Your task to perform on an android device: snooze an email in the gmail app Image 0: 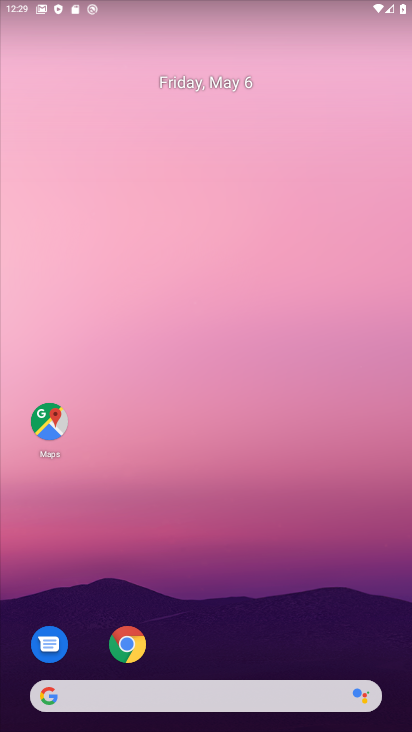
Step 0: drag from (191, 693) to (282, 2)
Your task to perform on an android device: snooze an email in the gmail app Image 1: 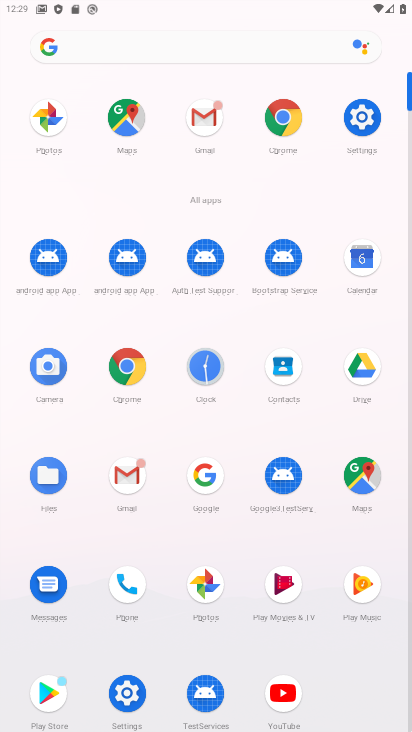
Step 1: click (209, 117)
Your task to perform on an android device: snooze an email in the gmail app Image 2: 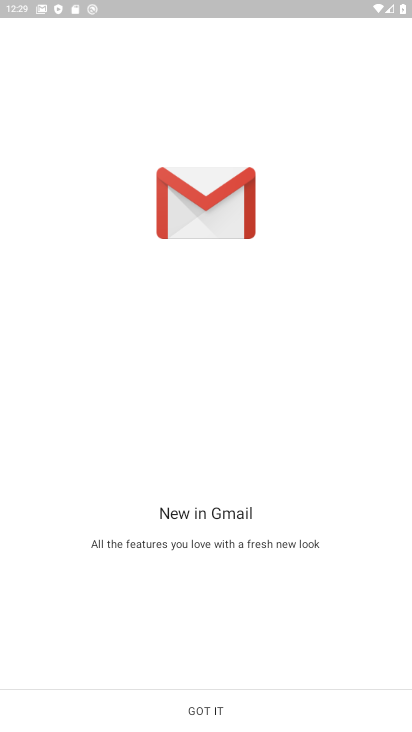
Step 2: click (166, 726)
Your task to perform on an android device: snooze an email in the gmail app Image 3: 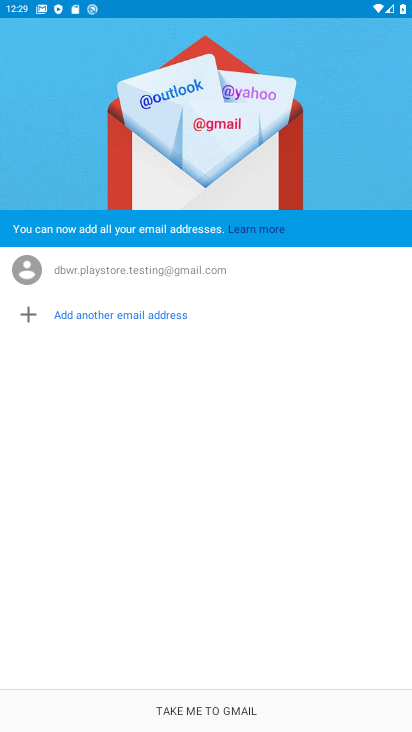
Step 3: click (178, 713)
Your task to perform on an android device: snooze an email in the gmail app Image 4: 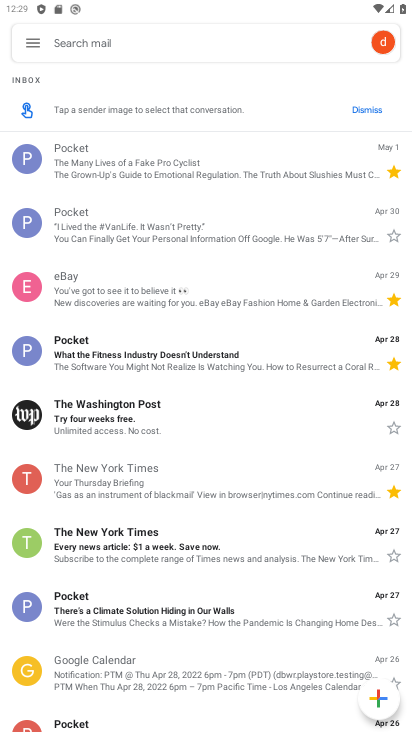
Step 4: click (34, 38)
Your task to perform on an android device: snooze an email in the gmail app Image 5: 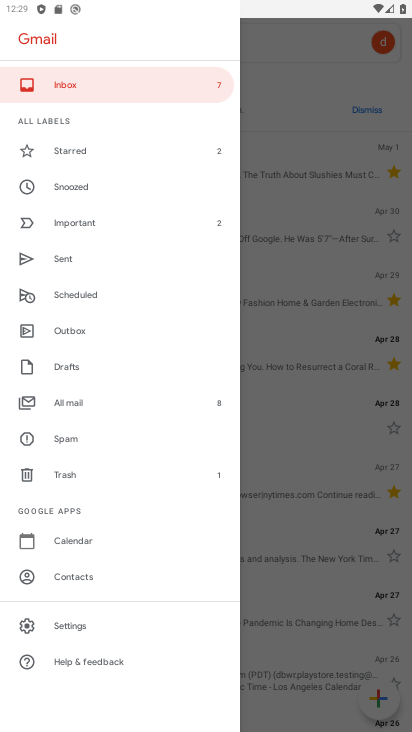
Step 5: click (88, 187)
Your task to perform on an android device: snooze an email in the gmail app Image 6: 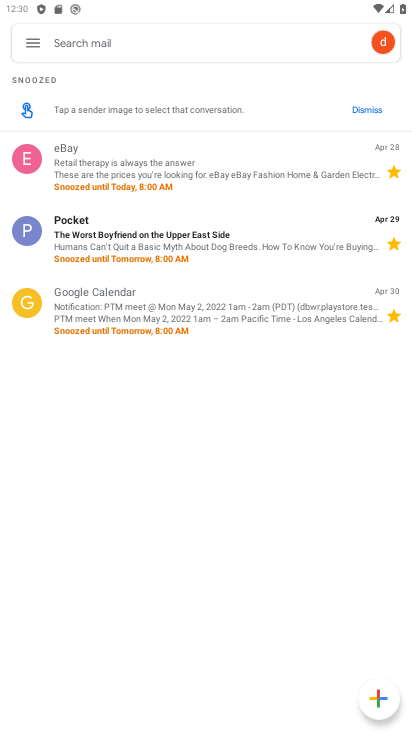
Step 6: task complete